Your task to perform on an android device: move an email to a new category in the gmail app Image 0: 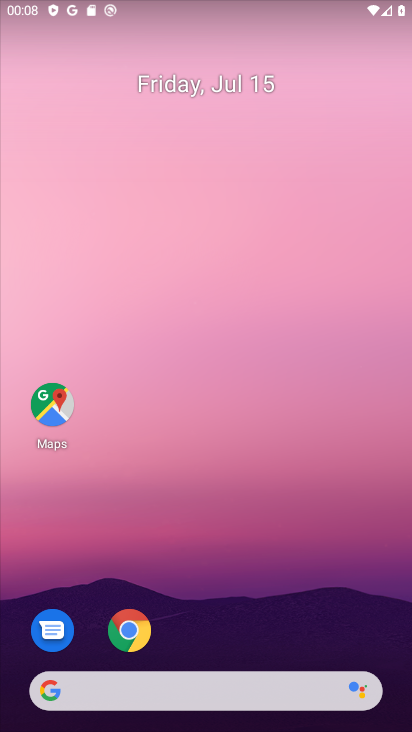
Step 0: drag from (291, 638) to (286, 9)
Your task to perform on an android device: move an email to a new category in the gmail app Image 1: 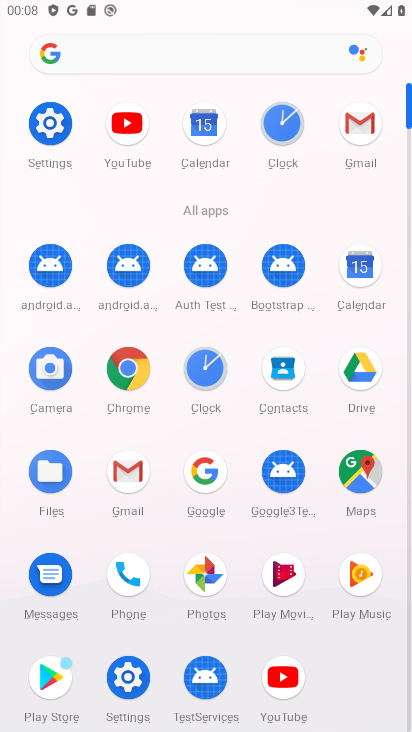
Step 1: click (344, 121)
Your task to perform on an android device: move an email to a new category in the gmail app Image 2: 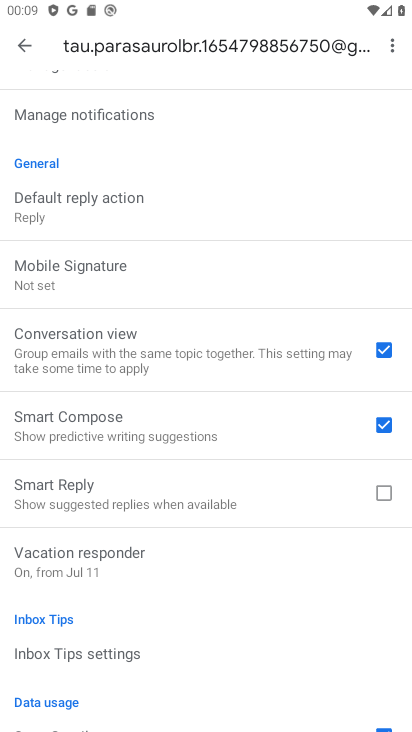
Step 2: drag from (130, 565) to (136, 434)
Your task to perform on an android device: move an email to a new category in the gmail app Image 3: 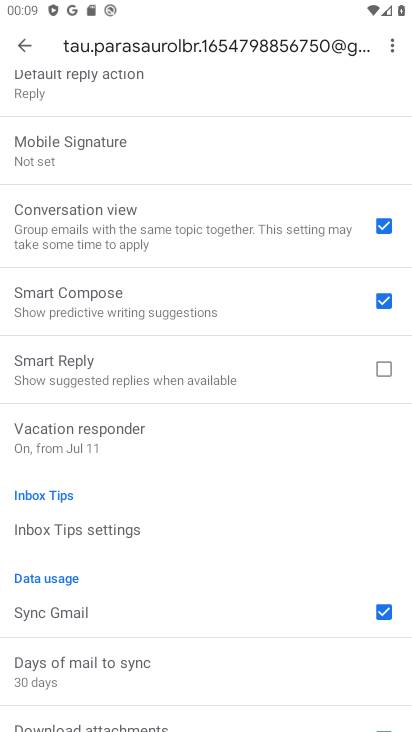
Step 3: click (17, 62)
Your task to perform on an android device: move an email to a new category in the gmail app Image 4: 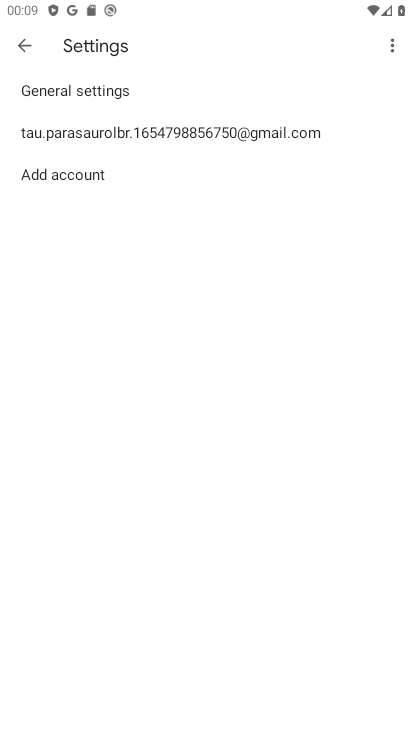
Step 4: click (25, 49)
Your task to perform on an android device: move an email to a new category in the gmail app Image 5: 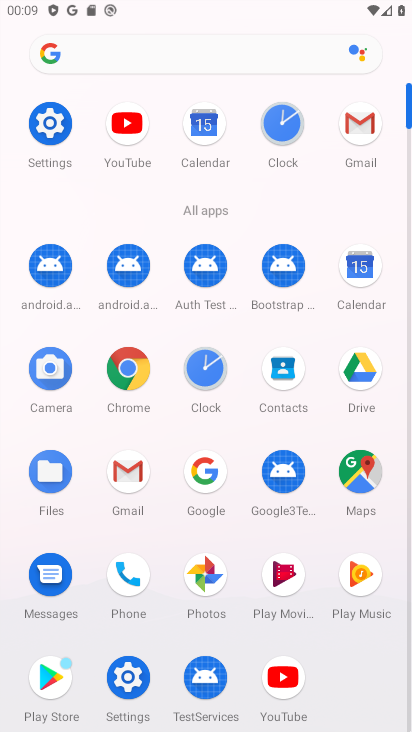
Step 5: task complete